Your task to perform on an android device: delete a single message in the gmail app Image 0: 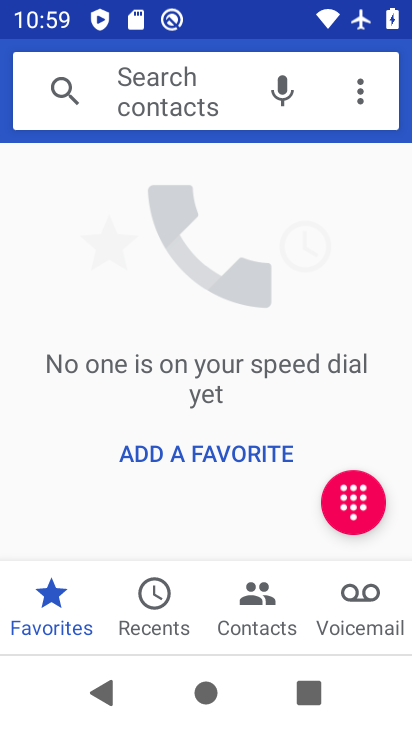
Step 0: press home button
Your task to perform on an android device: delete a single message in the gmail app Image 1: 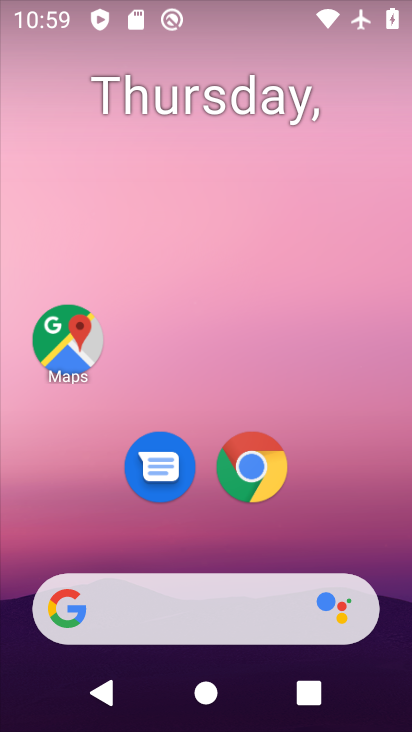
Step 1: drag from (351, 573) to (403, 548)
Your task to perform on an android device: delete a single message in the gmail app Image 2: 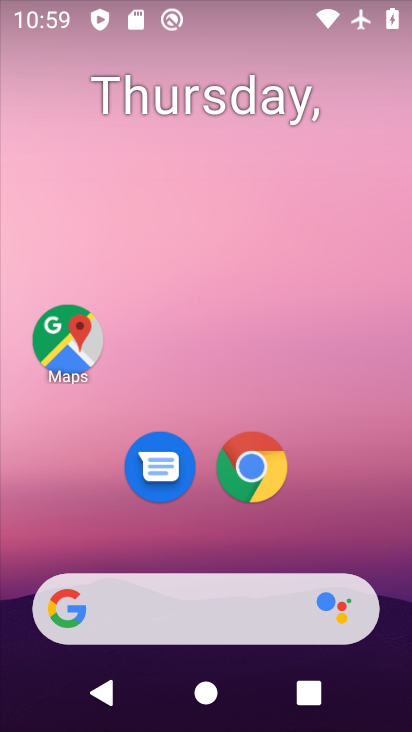
Step 2: drag from (331, 549) to (337, 3)
Your task to perform on an android device: delete a single message in the gmail app Image 3: 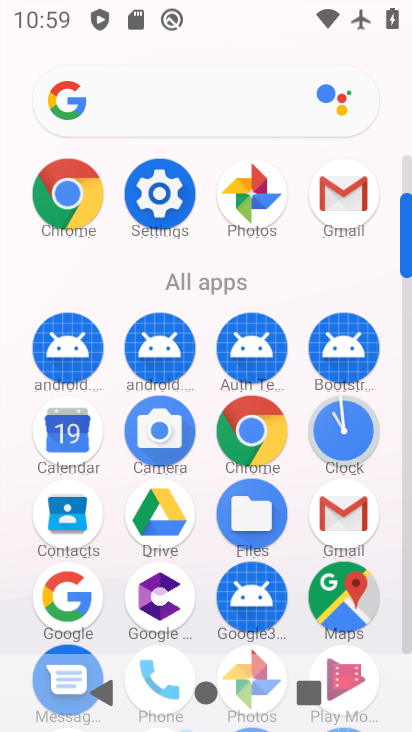
Step 3: click (349, 202)
Your task to perform on an android device: delete a single message in the gmail app Image 4: 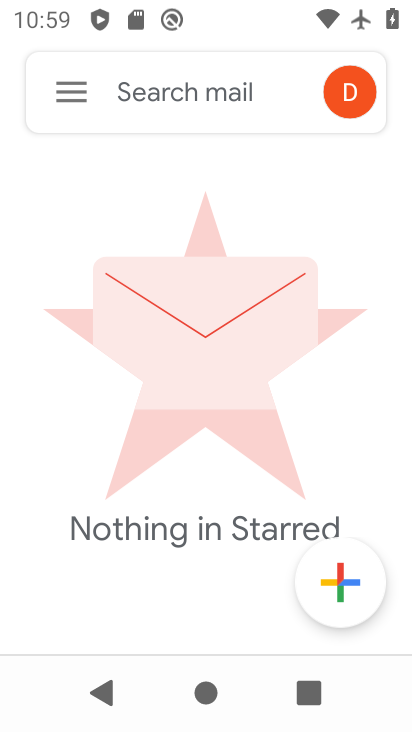
Step 4: click (71, 88)
Your task to perform on an android device: delete a single message in the gmail app Image 5: 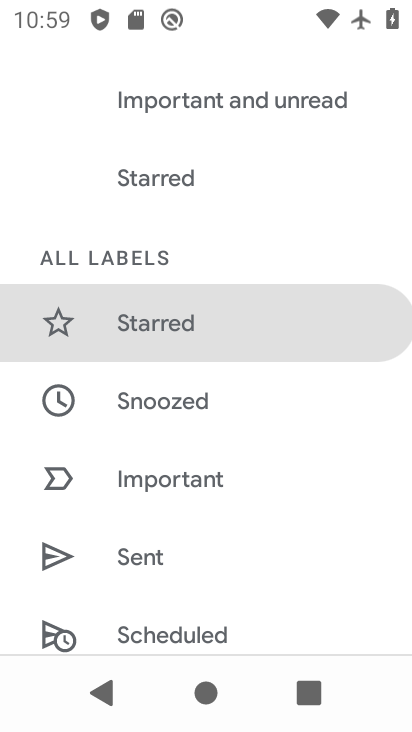
Step 5: drag from (197, 562) to (202, 130)
Your task to perform on an android device: delete a single message in the gmail app Image 6: 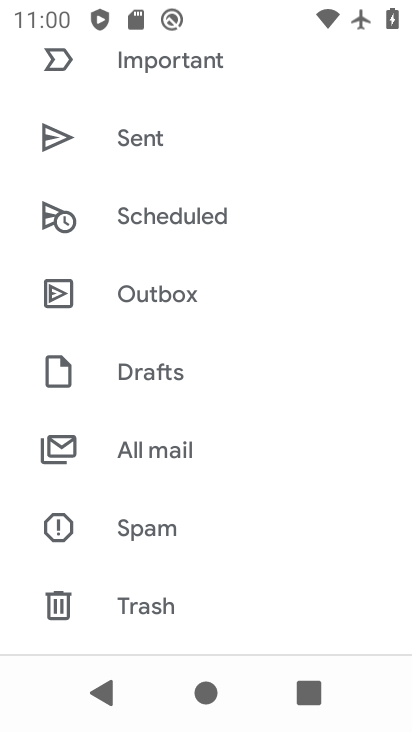
Step 6: click (152, 439)
Your task to perform on an android device: delete a single message in the gmail app Image 7: 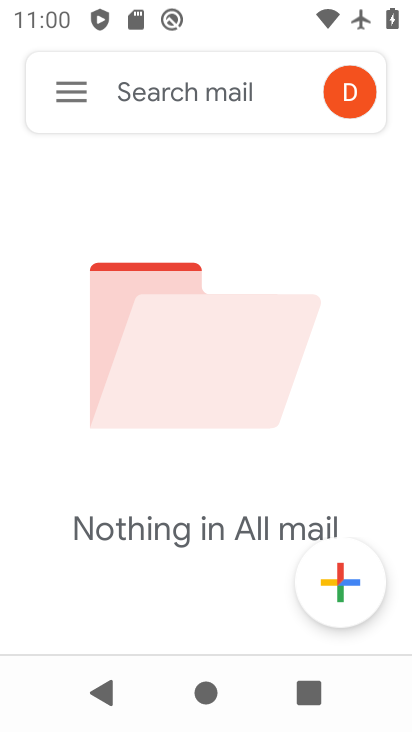
Step 7: task complete